Your task to perform on an android device: check the backup settings in the google photos Image 0: 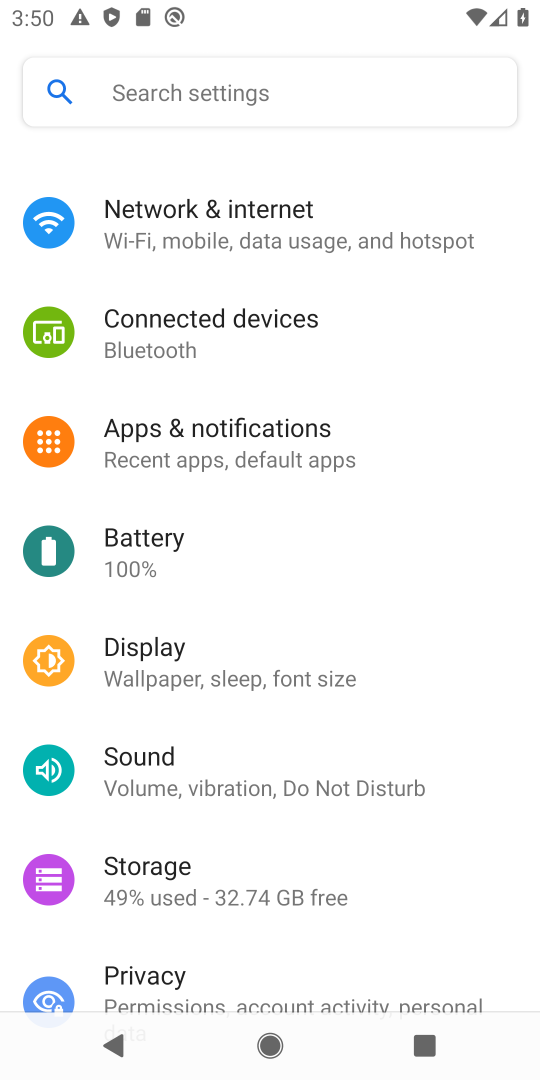
Step 0: press home button
Your task to perform on an android device: check the backup settings in the google photos Image 1: 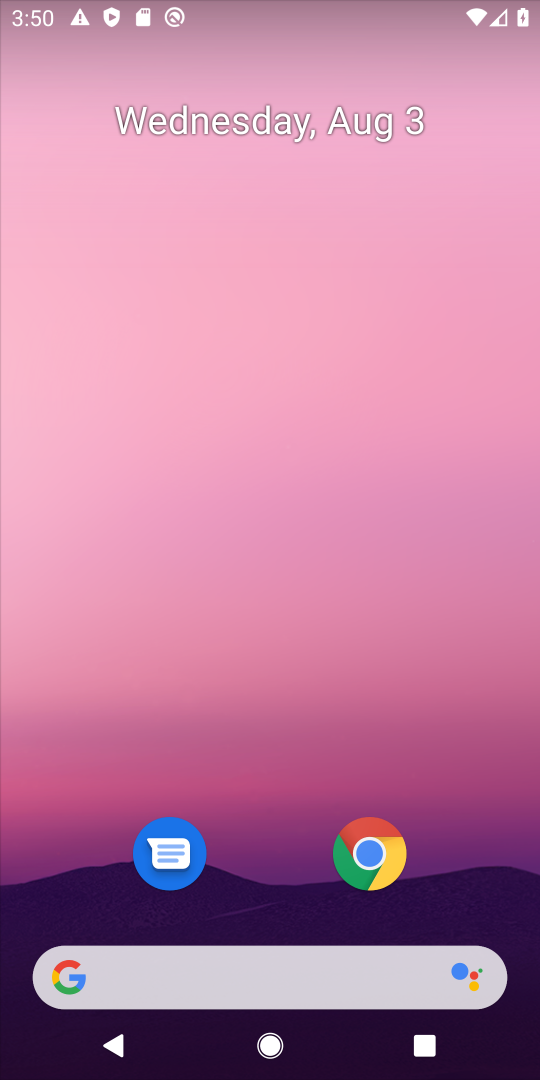
Step 1: drag from (290, 872) to (235, 103)
Your task to perform on an android device: check the backup settings in the google photos Image 2: 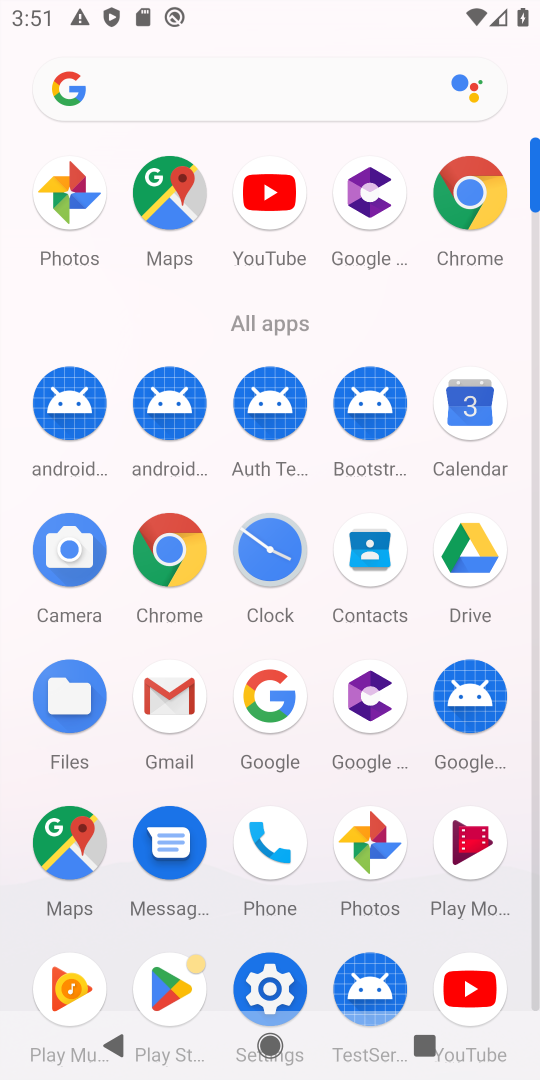
Step 2: click (369, 836)
Your task to perform on an android device: check the backup settings in the google photos Image 3: 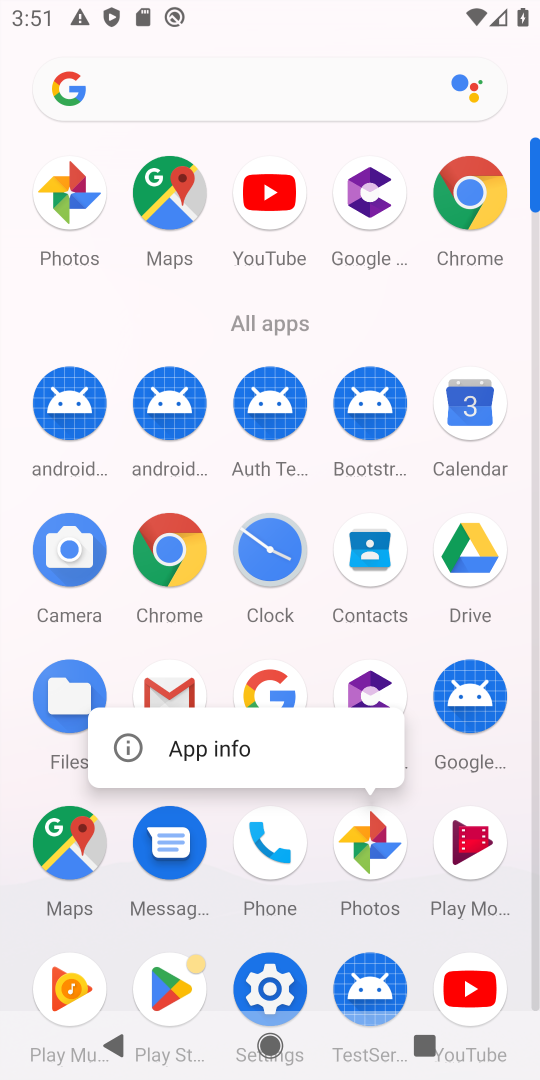
Step 3: click (367, 856)
Your task to perform on an android device: check the backup settings in the google photos Image 4: 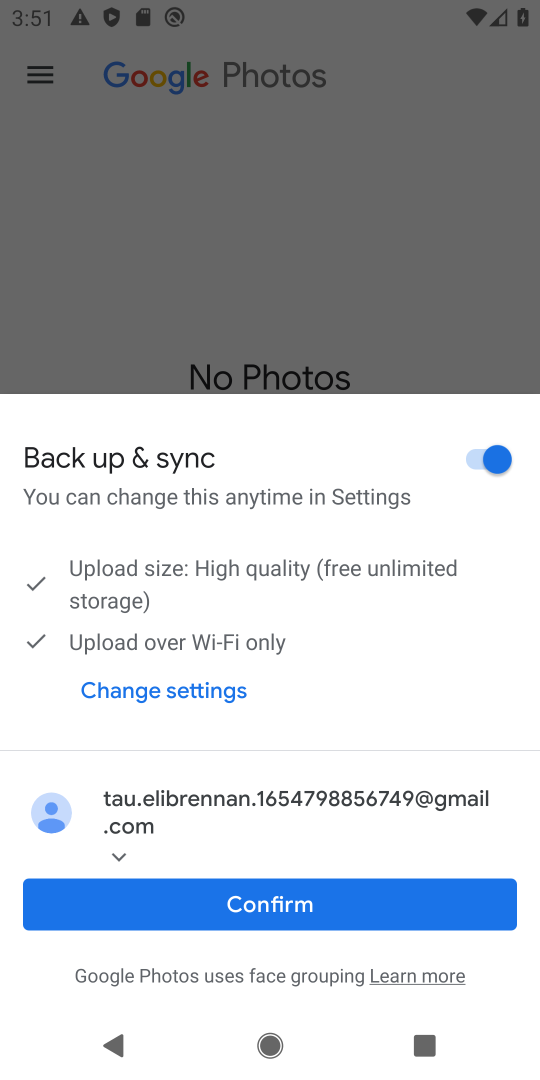
Step 4: click (292, 904)
Your task to perform on an android device: check the backup settings in the google photos Image 5: 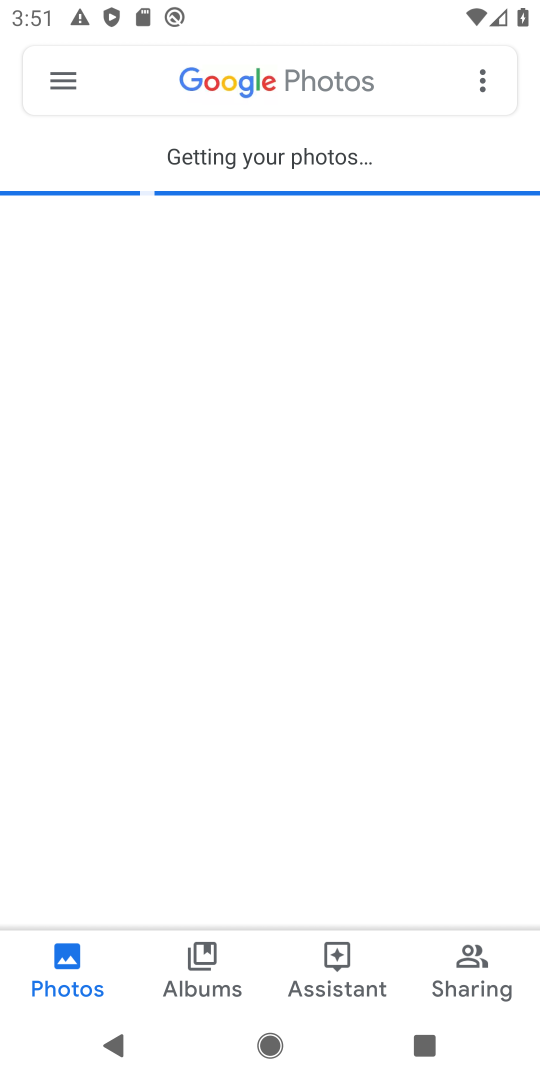
Step 5: click (50, 76)
Your task to perform on an android device: check the backup settings in the google photos Image 6: 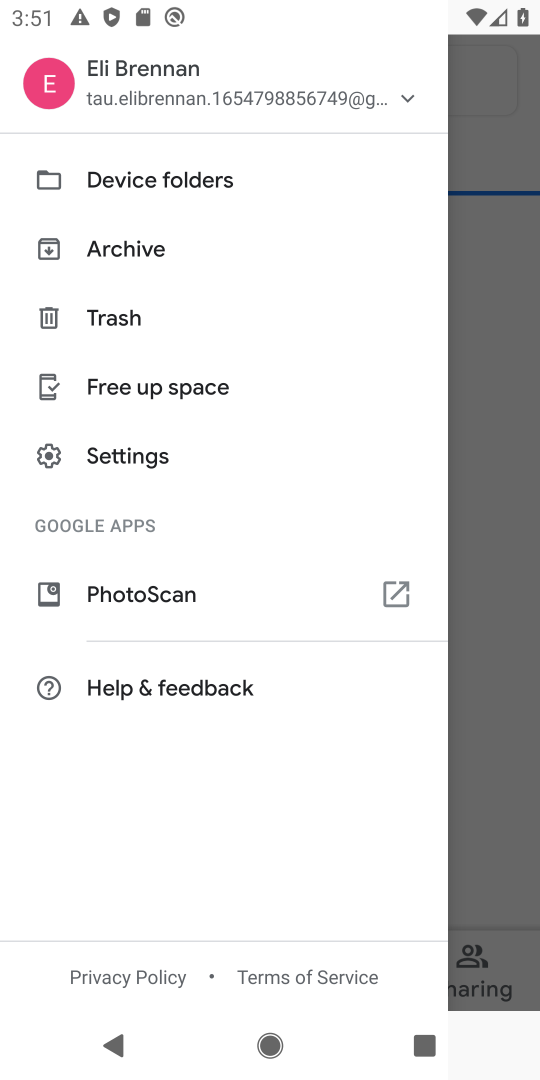
Step 6: click (131, 447)
Your task to perform on an android device: check the backup settings in the google photos Image 7: 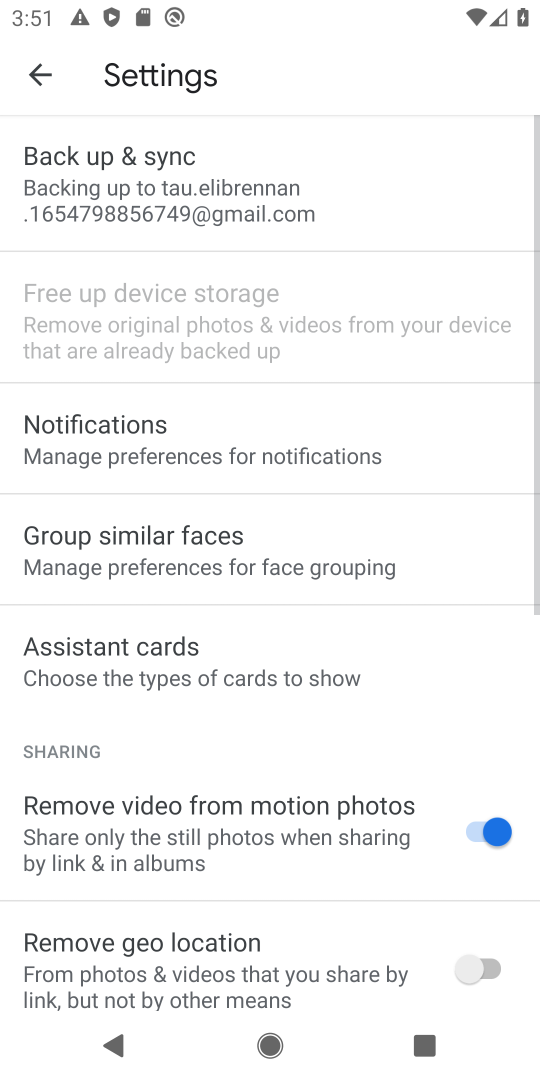
Step 7: click (185, 182)
Your task to perform on an android device: check the backup settings in the google photos Image 8: 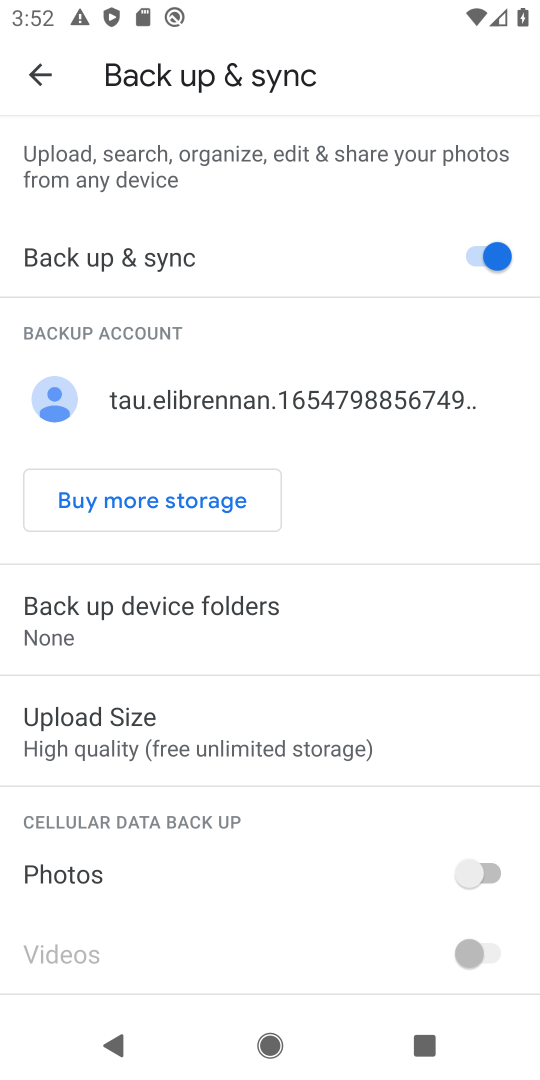
Step 8: click (109, 174)
Your task to perform on an android device: check the backup settings in the google photos Image 9: 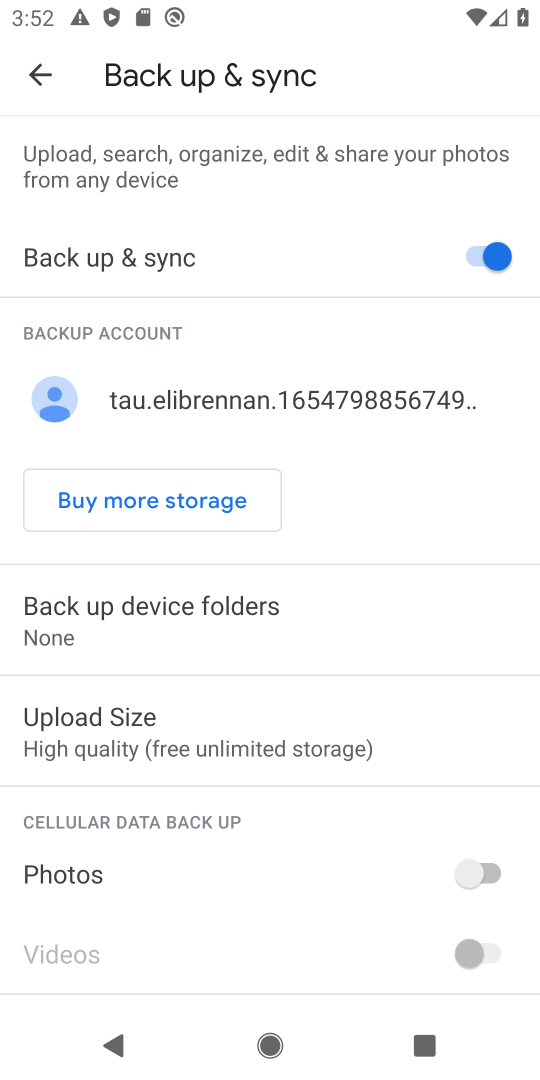
Step 9: click (113, 157)
Your task to perform on an android device: check the backup settings in the google photos Image 10: 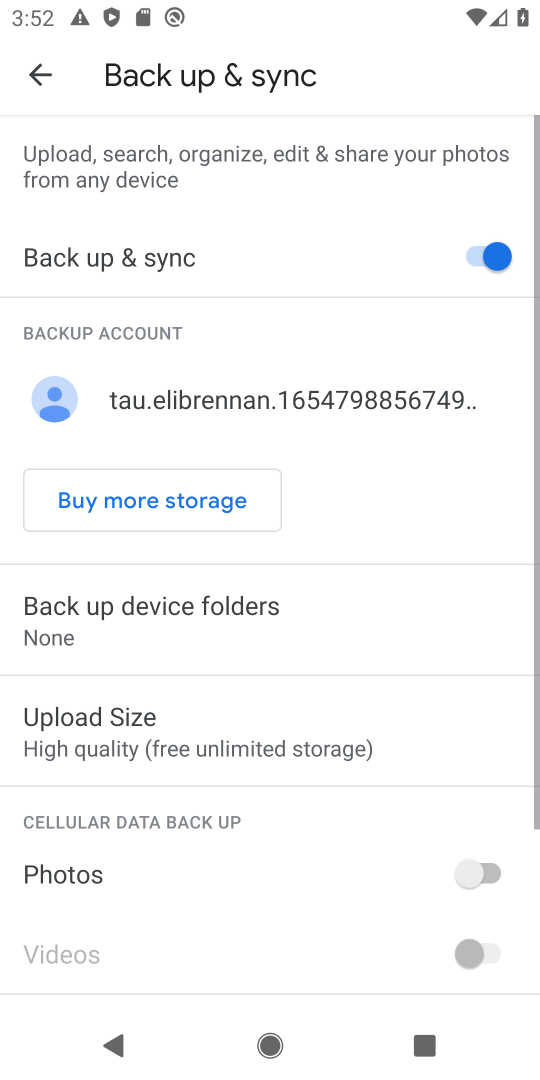
Step 10: task complete